Your task to perform on an android device: clear all cookies in the chrome app Image 0: 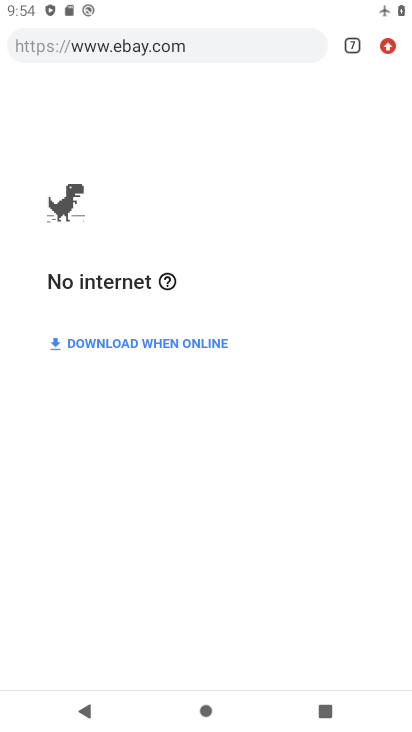
Step 0: press home button
Your task to perform on an android device: clear all cookies in the chrome app Image 1: 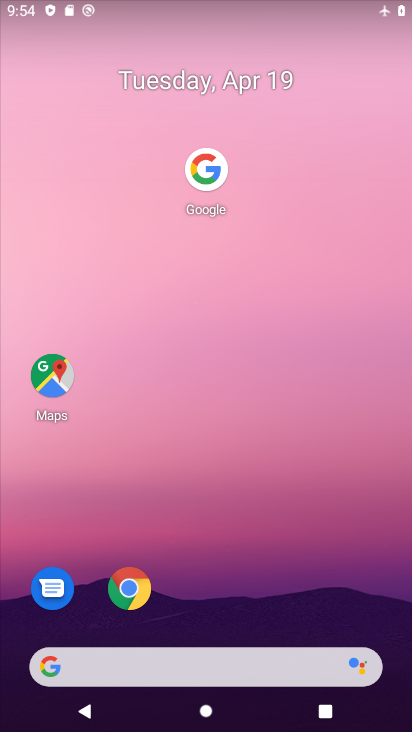
Step 1: click (127, 593)
Your task to perform on an android device: clear all cookies in the chrome app Image 2: 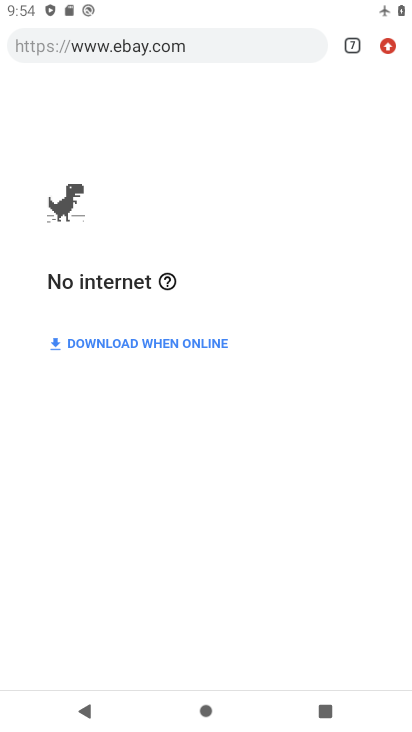
Step 2: click (386, 46)
Your task to perform on an android device: clear all cookies in the chrome app Image 3: 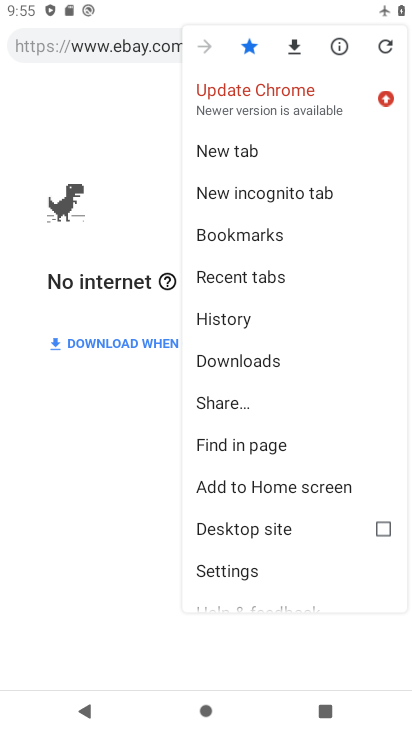
Step 3: click (239, 571)
Your task to perform on an android device: clear all cookies in the chrome app Image 4: 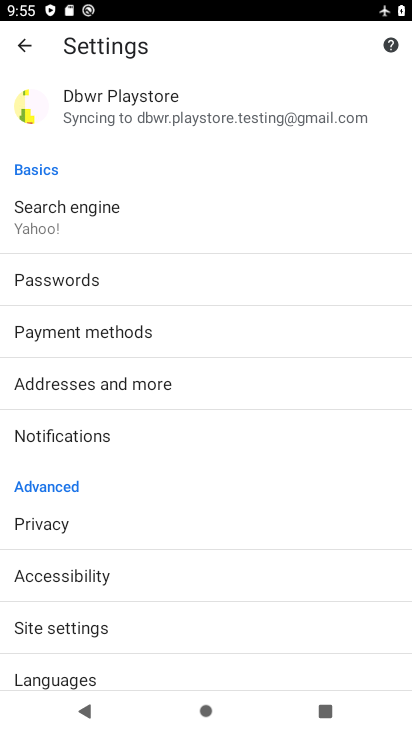
Step 4: click (42, 524)
Your task to perform on an android device: clear all cookies in the chrome app Image 5: 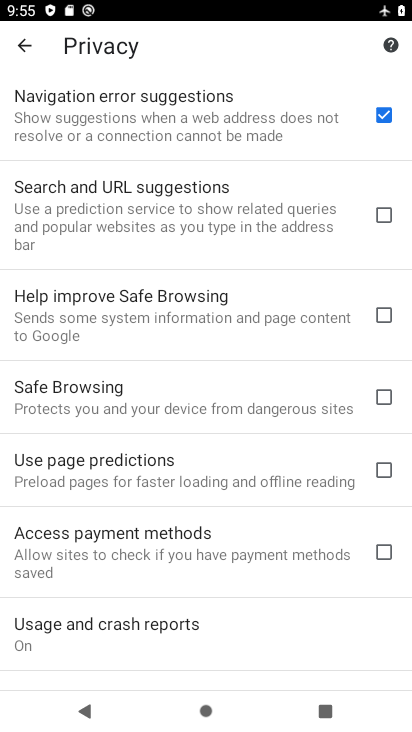
Step 5: drag from (262, 614) to (329, 180)
Your task to perform on an android device: clear all cookies in the chrome app Image 6: 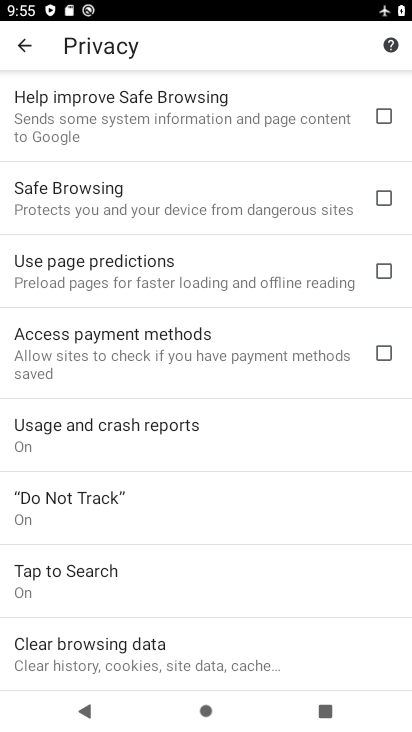
Step 6: click (108, 655)
Your task to perform on an android device: clear all cookies in the chrome app Image 7: 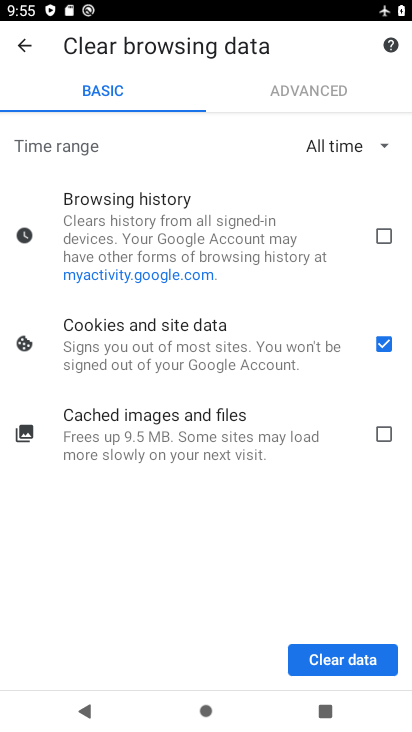
Step 7: click (353, 664)
Your task to perform on an android device: clear all cookies in the chrome app Image 8: 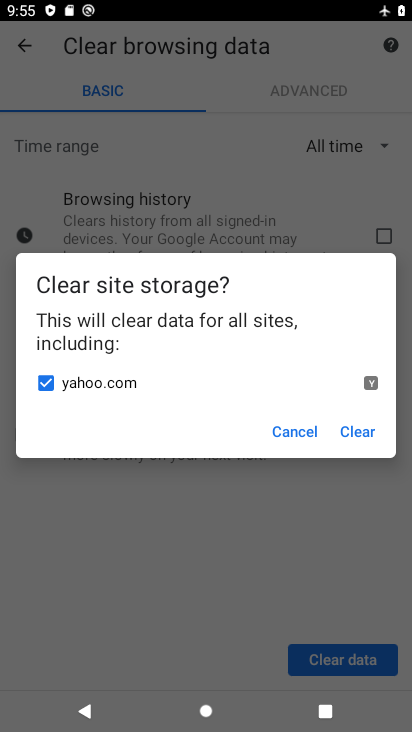
Step 8: click (358, 430)
Your task to perform on an android device: clear all cookies in the chrome app Image 9: 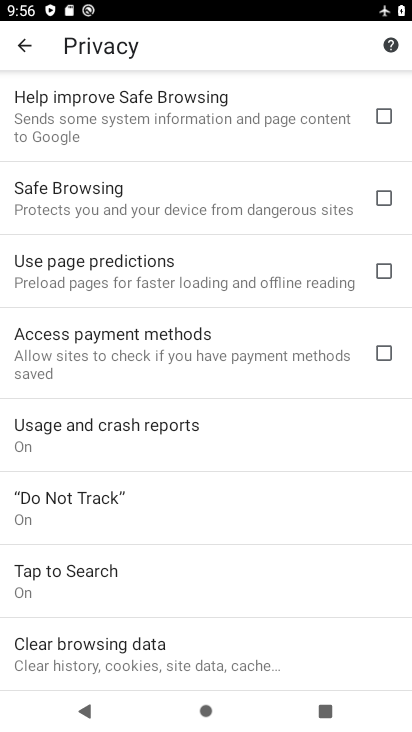
Step 9: task complete